Your task to perform on an android device: Open calendar and show me the first week of next month Image 0: 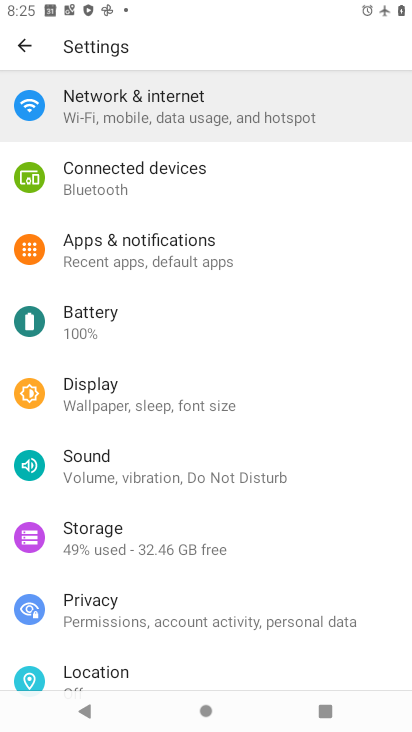
Step 0: press home button
Your task to perform on an android device: Open calendar and show me the first week of next month Image 1: 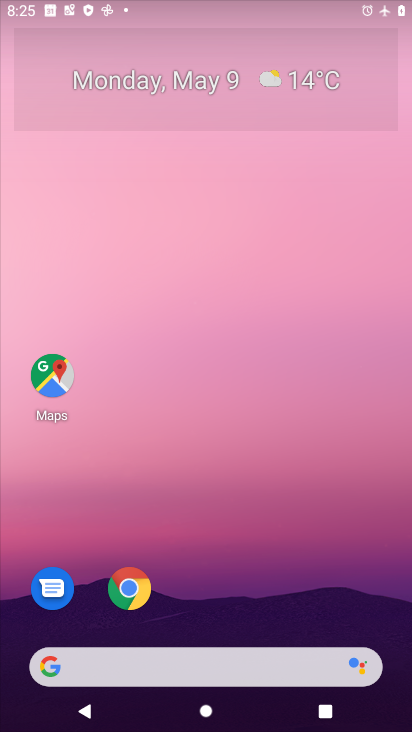
Step 1: drag from (344, 599) to (409, 222)
Your task to perform on an android device: Open calendar and show me the first week of next month Image 2: 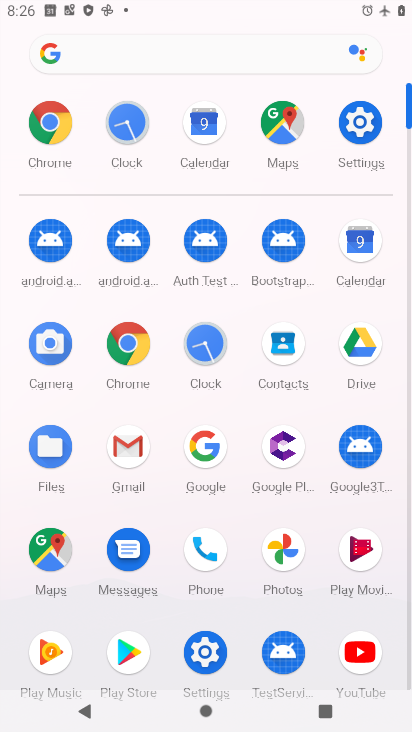
Step 2: click (365, 247)
Your task to perform on an android device: Open calendar and show me the first week of next month Image 3: 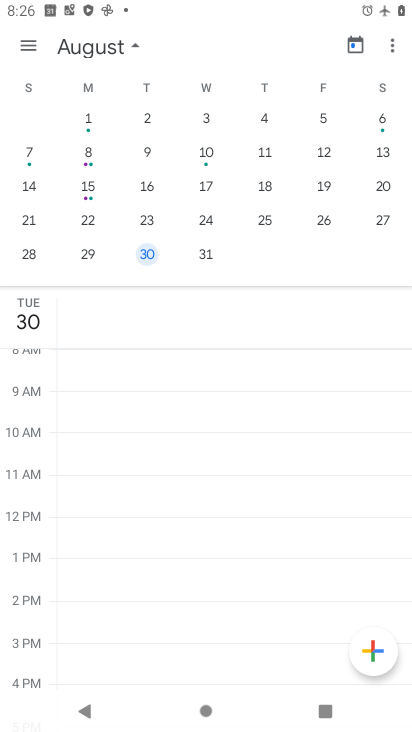
Step 3: drag from (354, 217) to (0, 181)
Your task to perform on an android device: Open calendar and show me the first week of next month Image 4: 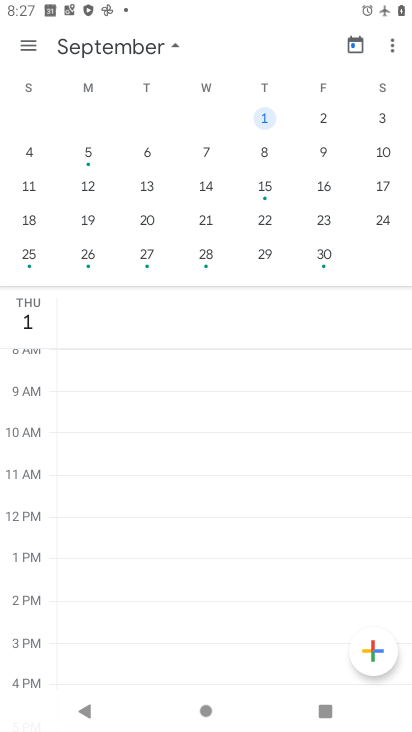
Step 4: click (81, 145)
Your task to perform on an android device: Open calendar and show me the first week of next month Image 5: 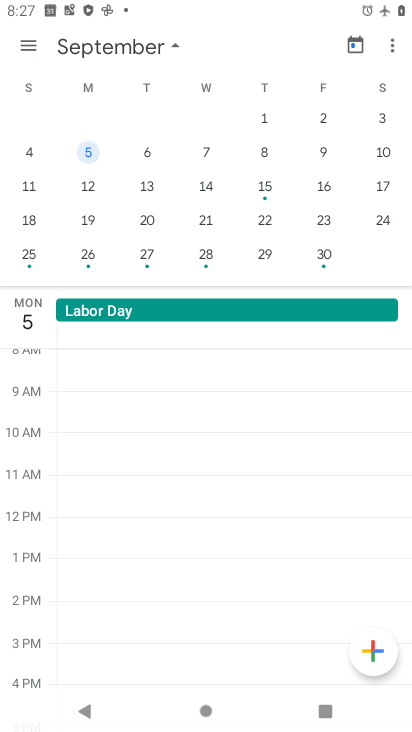
Step 5: task complete